Your task to perform on an android device: Open the stopwatch Image 0: 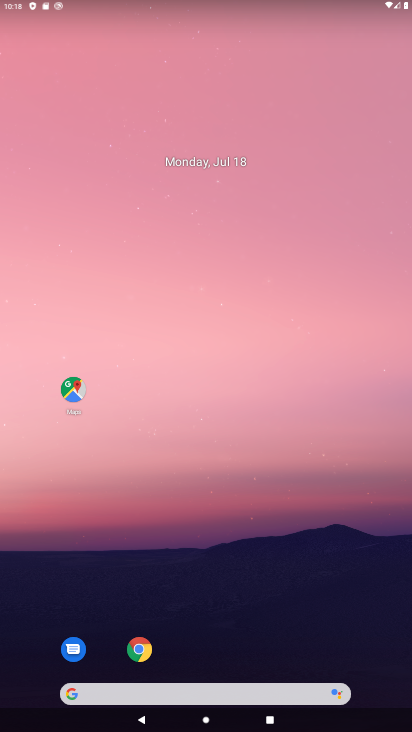
Step 0: drag from (204, 598) to (168, 92)
Your task to perform on an android device: Open the stopwatch Image 1: 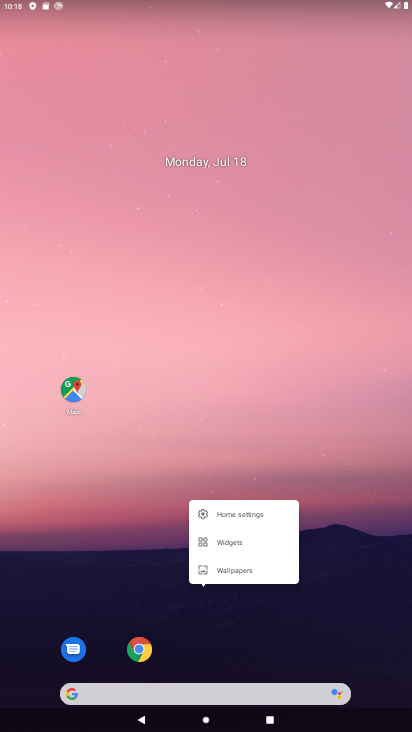
Step 1: click (334, 432)
Your task to perform on an android device: Open the stopwatch Image 2: 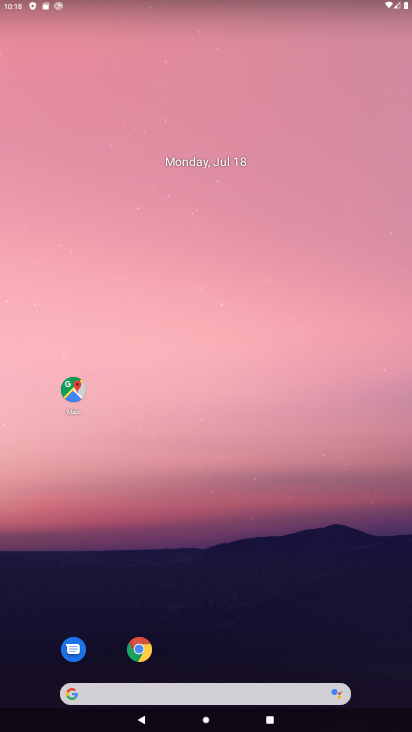
Step 2: drag from (275, 575) to (227, 153)
Your task to perform on an android device: Open the stopwatch Image 3: 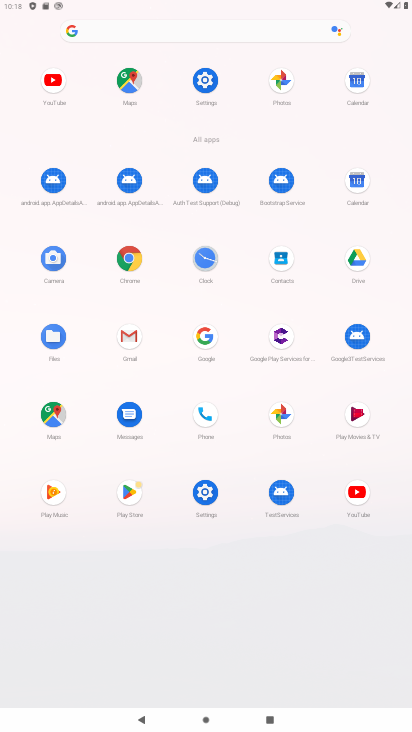
Step 3: click (212, 255)
Your task to perform on an android device: Open the stopwatch Image 4: 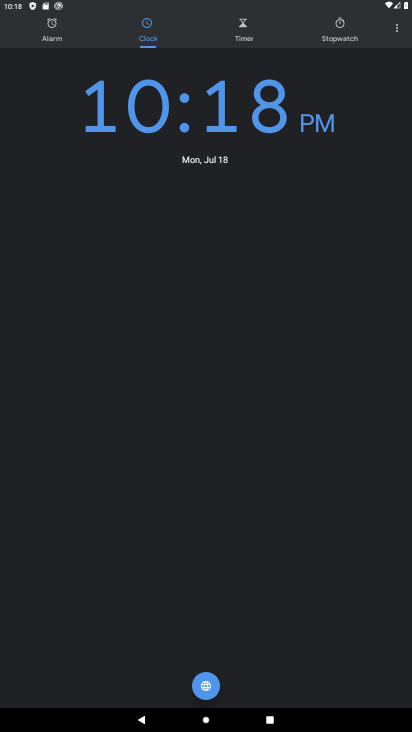
Step 4: click (341, 34)
Your task to perform on an android device: Open the stopwatch Image 5: 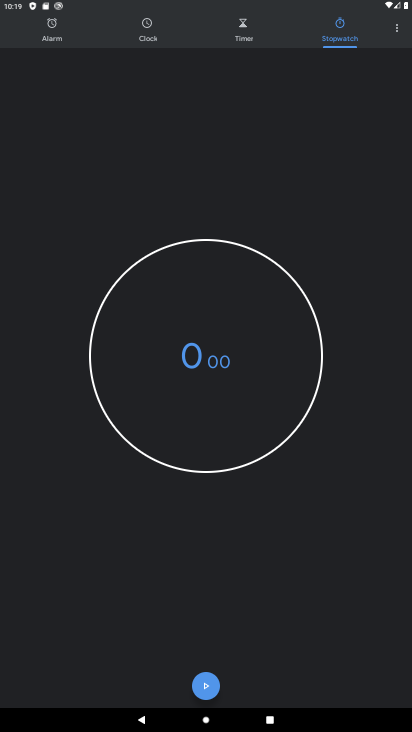
Step 5: task complete